Your task to perform on an android device: turn on data saver in the chrome app Image 0: 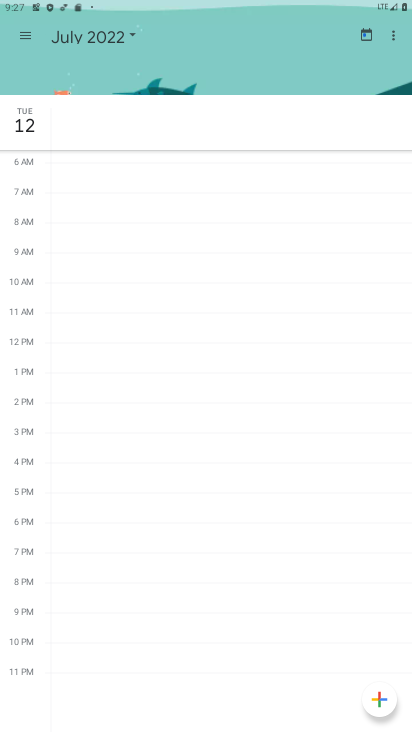
Step 0: press home button
Your task to perform on an android device: turn on data saver in the chrome app Image 1: 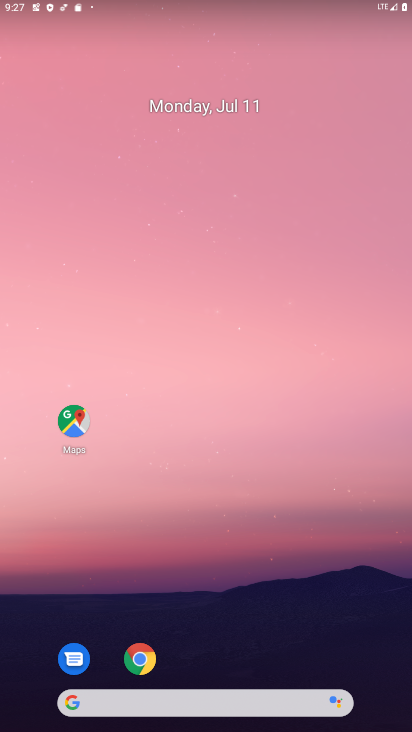
Step 1: click (136, 656)
Your task to perform on an android device: turn on data saver in the chrome app Image 2: 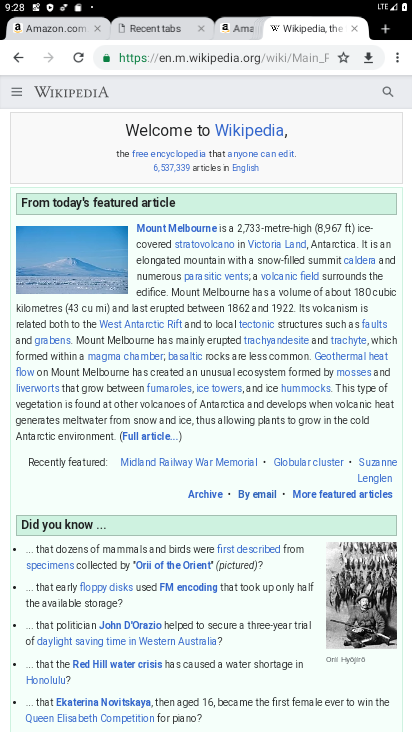
Step 2: click (397, 62)
Your task to perform on an android device: turn on data saver in the chrome app Image 3: 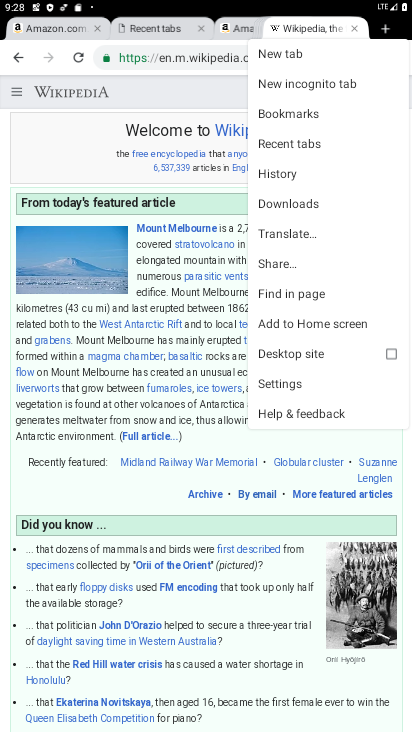
Step 3: click (282, 383)
Your task to perform on an android device: turn on data saver in the chrome app Image 4: 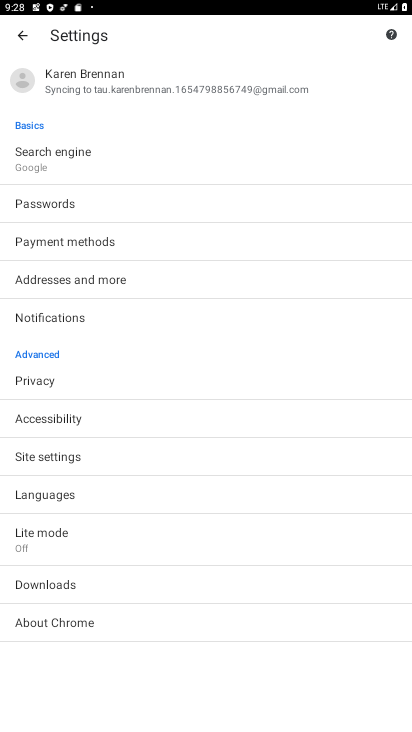
Step 4: click (34, 528)
Your task to perform on an android device: turn on data saver in the chrome app Image 5: 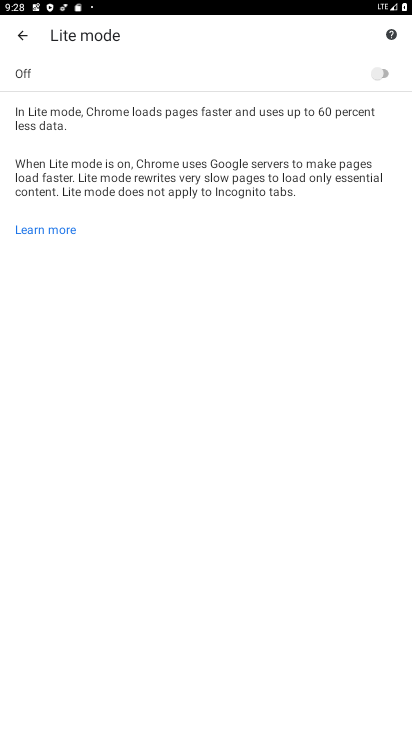
Step 5: click (387, 72)
Your task to perform on an android device: turn on data saver in the chrome app Image 6: 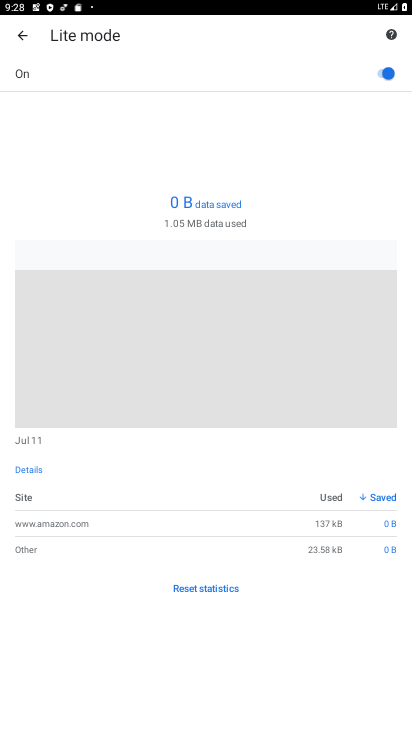
Step 6: task complete